Your task to perform on an android device: See recent photos Image 0: 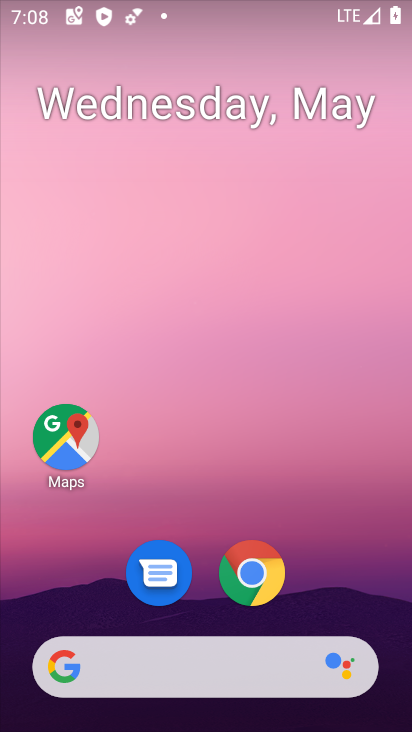
Step 0: drag from (320, 601) to (310, 84)
Your task to perform on an android device: See recent photos Image 1: 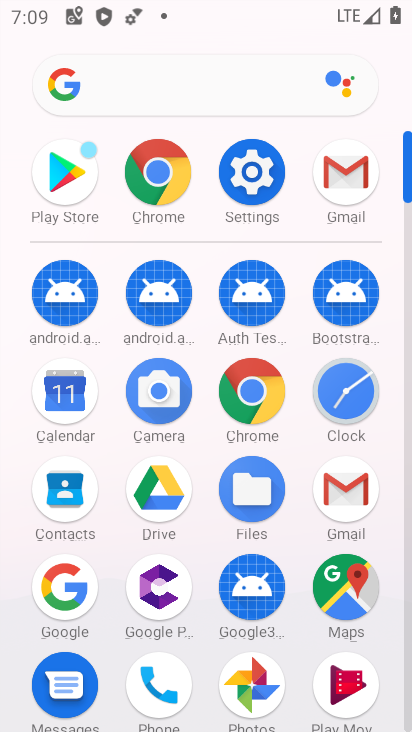
Step 1: click (241, 679)
Your task to perform on an android device: See recent photos Image 2: 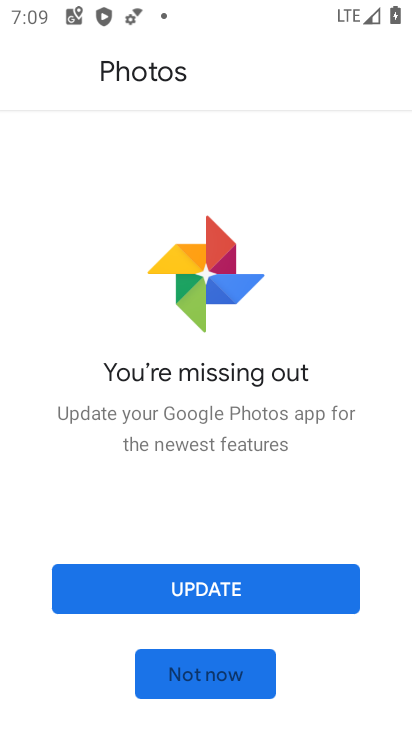
Step 2: click (174, 683)
Your task to perform on an android device: See recent photos Image 3: 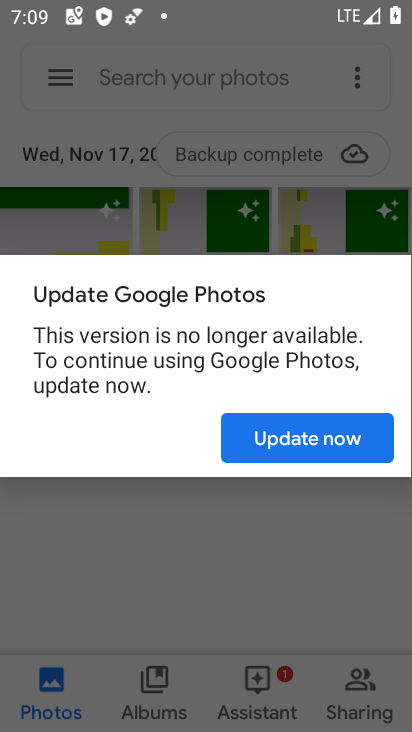
Step 3: click (281, 447)
Your task to perform on an android device: See recent photos Image 4: 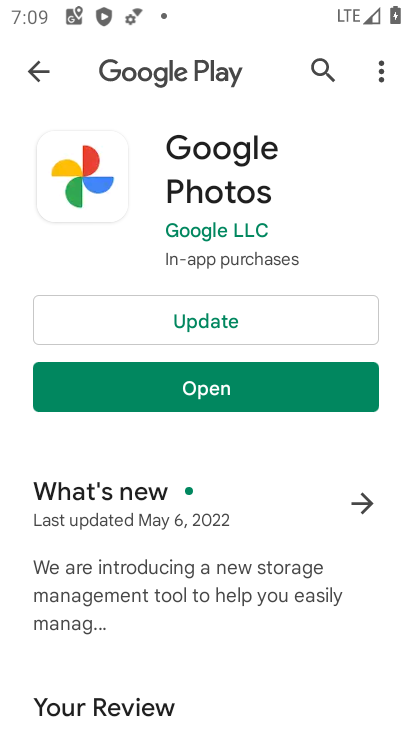
Step 4: click (208, 328)
Your task to perform on an android device: See recent photos Image 5: 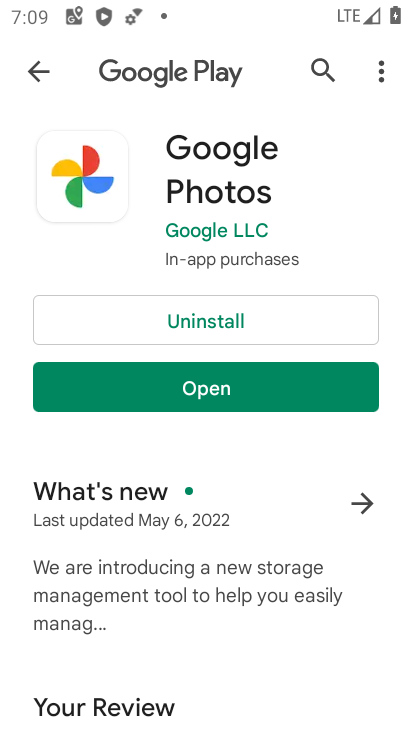
Step 5: click (202, 400)
Your task to perform on an android device: See recent photos Image 6: 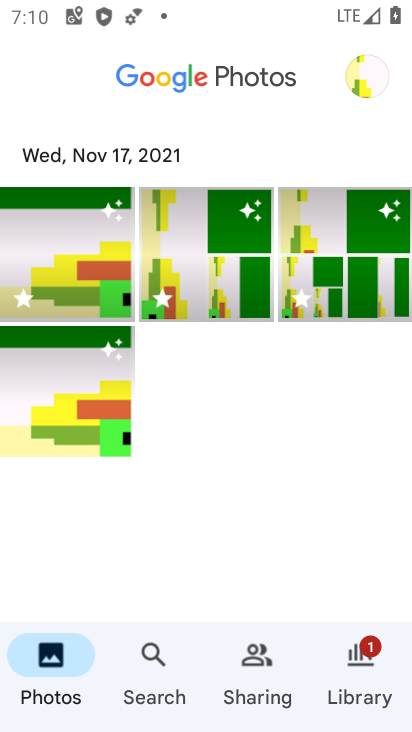
Step 6: click (368, 684)
Your task to perform on an android device: See recent photos Image 7: 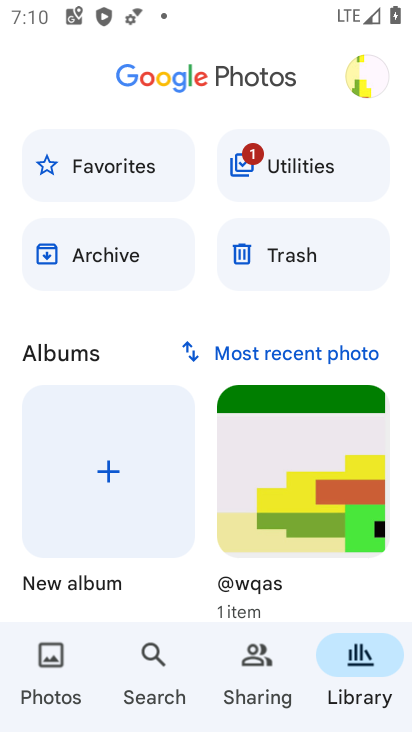
Step 7: task complete